Your task to perform on an android device: set the timer Image 0: 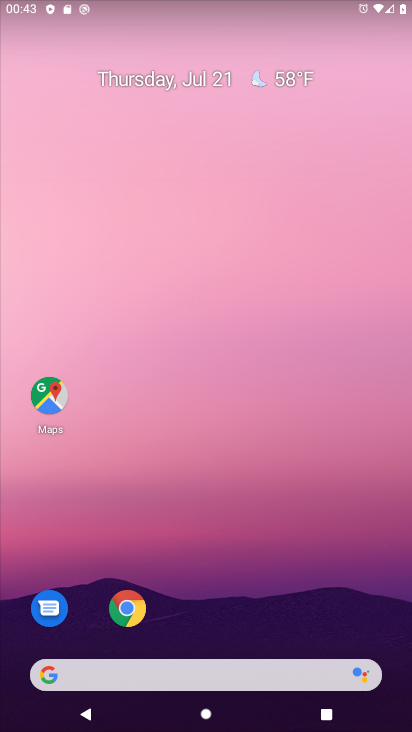
Step 0: press home button
Your task to perform on an android device: set the timer Image 1: 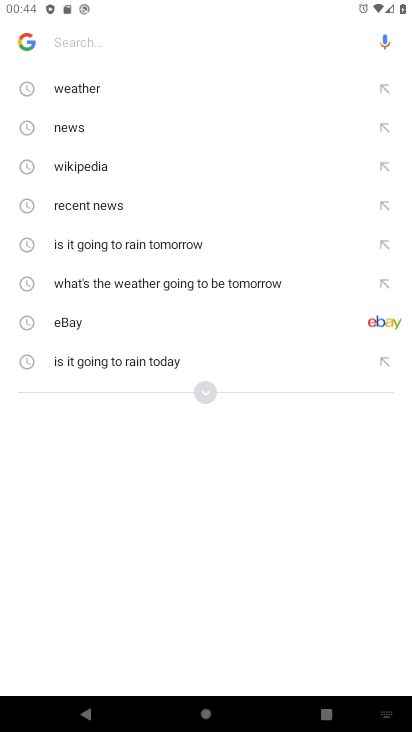
Step 1: click (278, 22)
Your task to perform on an android device: set the timer Image 2: 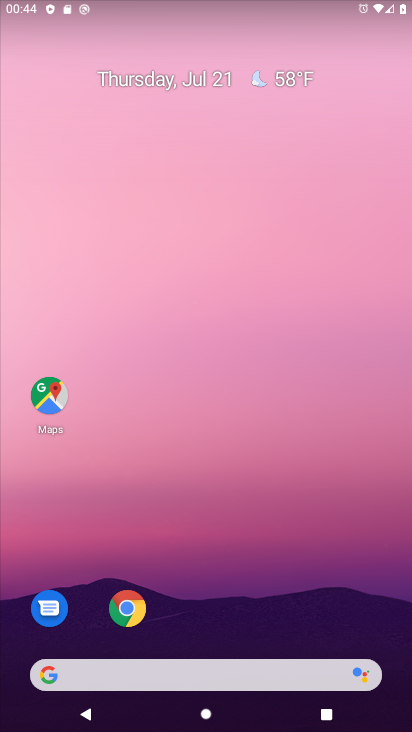
Step 2: drag from (233, 626) to (268, 27)
Your task to perform on an android device: set the timer Image 3: 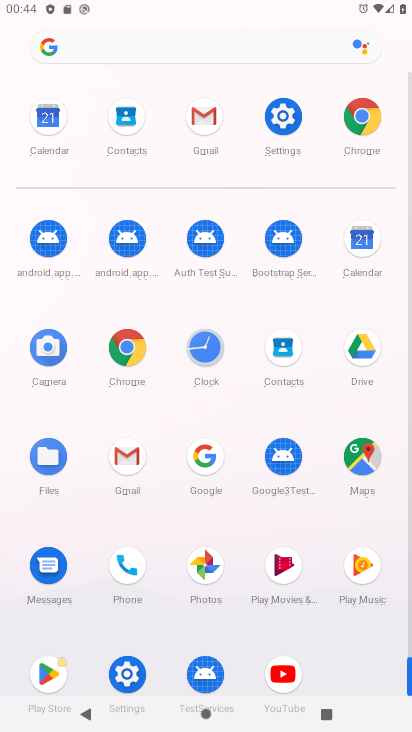
Step 3: click (204, 339)
Your task to perform on an android device: set the timer Image 4: 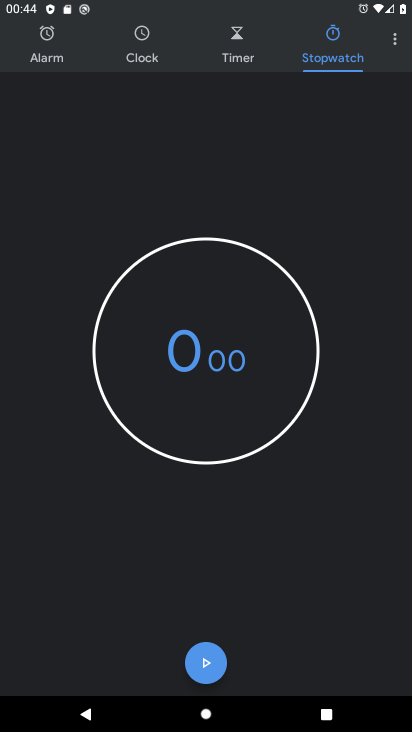
Step 4: click (239, 34)
Your task to perform on an android device: set the timer Image 5: 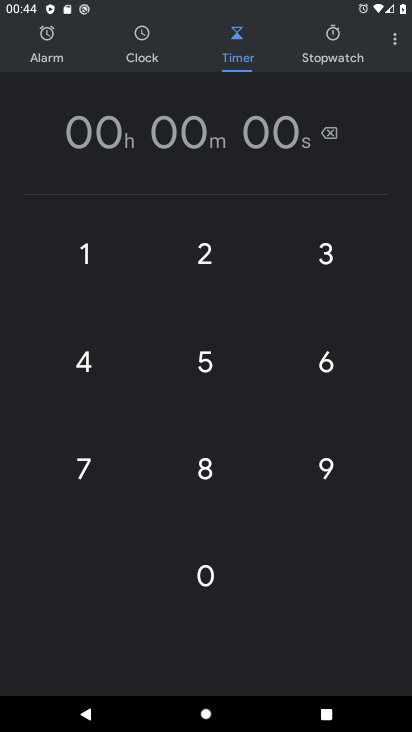
Step 5: click (205, 262)
Your task to perform on an android device: set the timer Image 6: 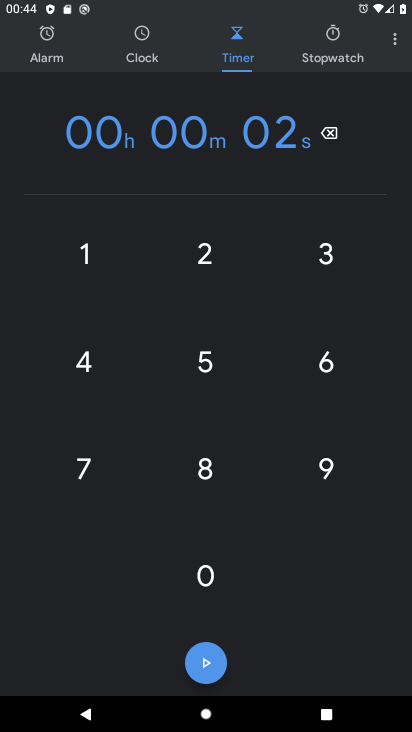
Step 6: click (209, 582)
Your task to perform on an android device: set the timer Image 7: 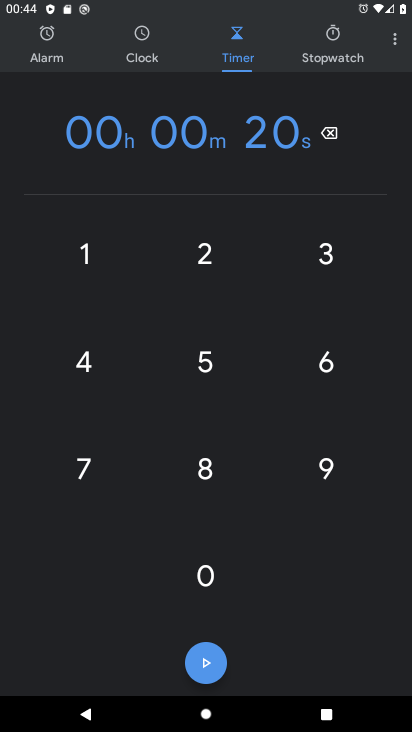
Step 7: click (195, 570)
Your task to perform on an android device: set the timer Image 8: 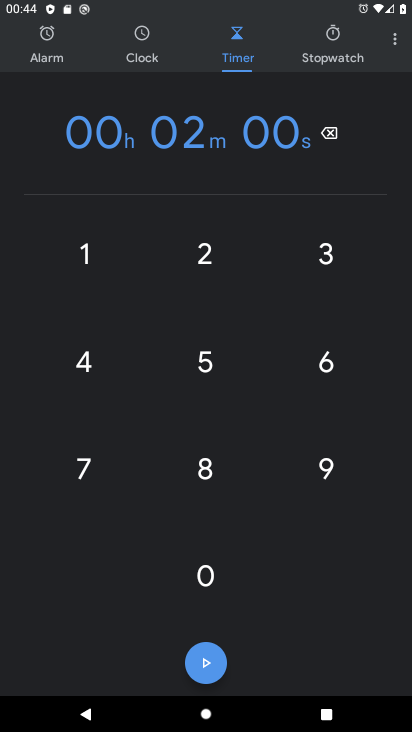
Step 8: click (195, 567)
Your task to perform on an android device: set the timer Image 9: 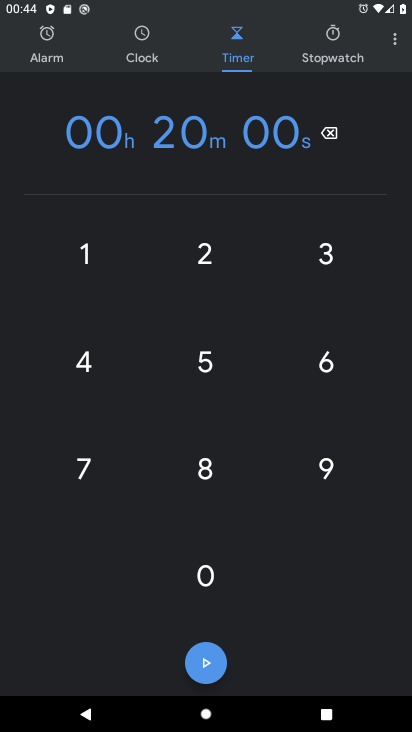
Step 9: click (202, 657)
Your task to perform on an android device: set the timer Image 10: 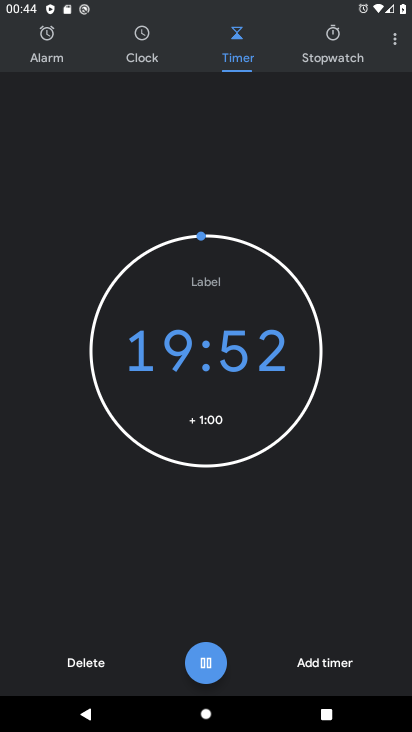
Step 10: task complete